Your task to perform on an android device: allow notifications from all sites in the chrome app Image 0: 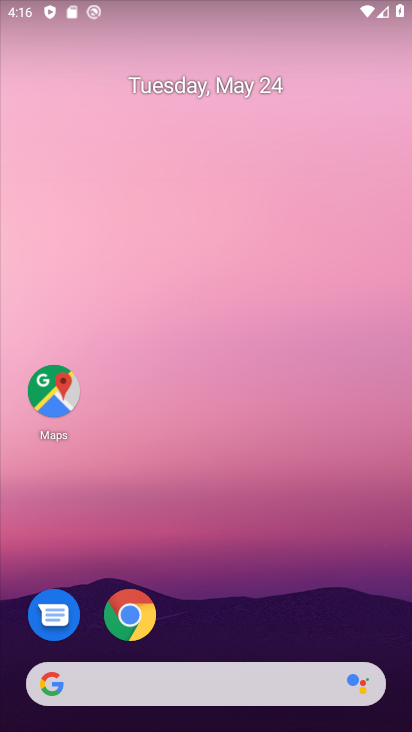
Step 0: click (130, 618)
Your task to perform on an android device: allow notifications from all sites in the chrome app Image 1: 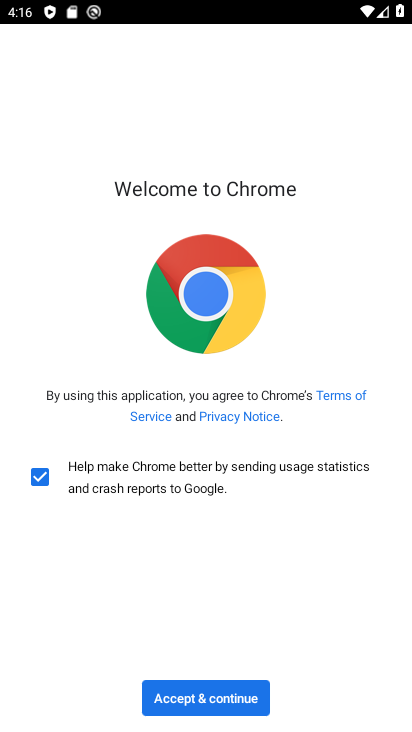
Step 1: click (203, 693)
Your task to perform on an android device: allow notifications from all sites in the chrome app Image 2: 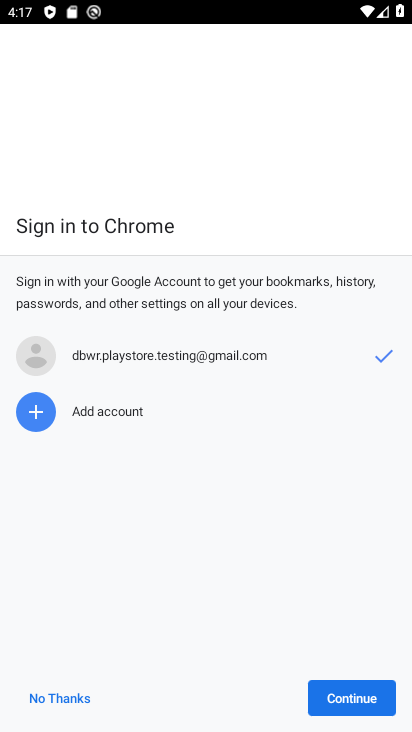
Step 2: click (376, 701)
Your task to perform on an android device: allow notifications from all sites in the chrome app Image 3: 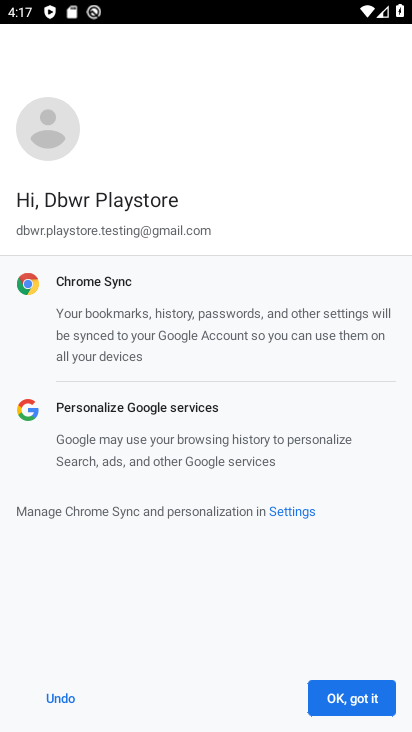
Step 3: click (373, 695)
Your task to perform on an android device: allow notifications from all sites in the chrome app Image 4: 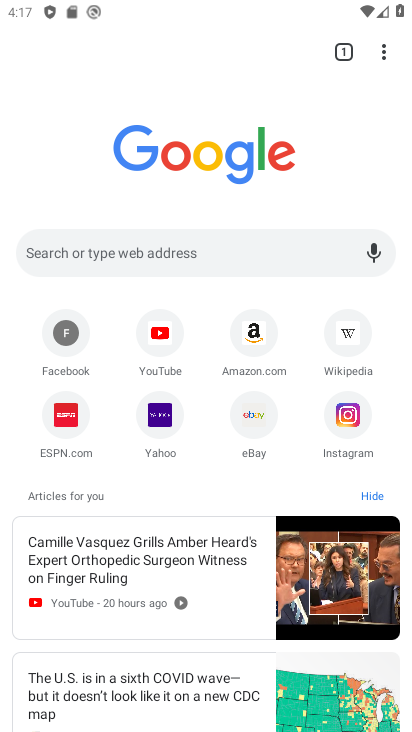
Step 4: click (381, 53)
Your task to perform on an android device: allow notifications from all sites in the chrome app Image 5: 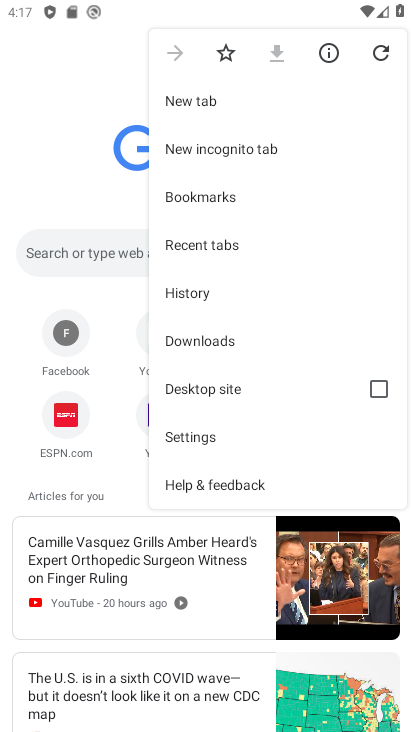
Step 5: click (218, 434)
Your task to perform on an android device: allow notifications from all sites in the chrome app Image 6: 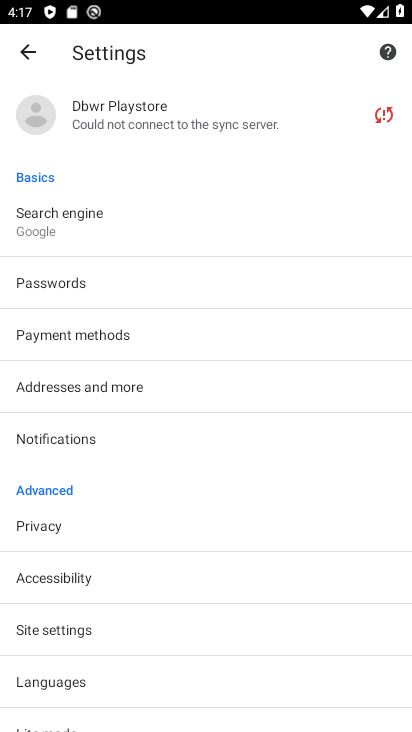
Step 6: click (156, 642)
Your task to perform on an android device: allow notifications from all sites in the chrome app Image 7: 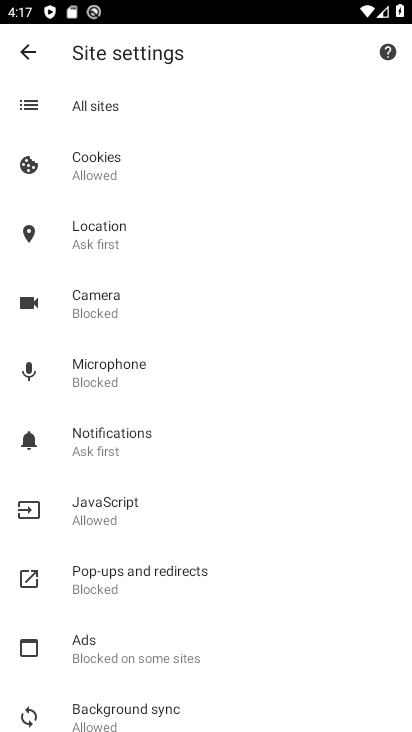
Step 7: click (195, 437)
Your task to perform on an android device: allow notifications from all sites in the chrome app Image 8: 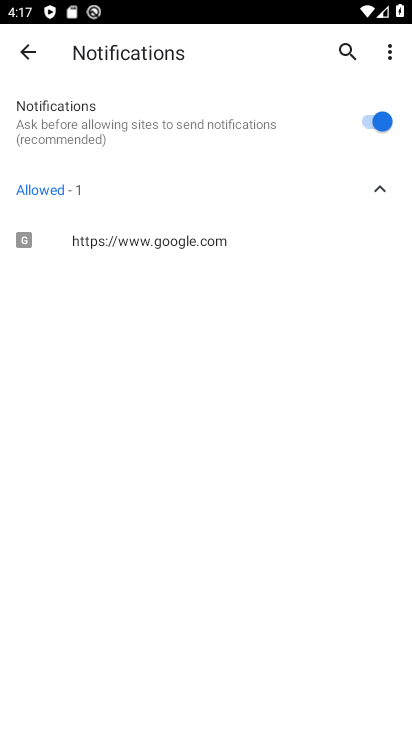
Step 8: task complete